Your task to perform on an android device: open app "HBO Max: Stream TV & Movies" (install if not already installed) and enter user name: "faring@outlook.com" and password: "appropriately" Image 0: 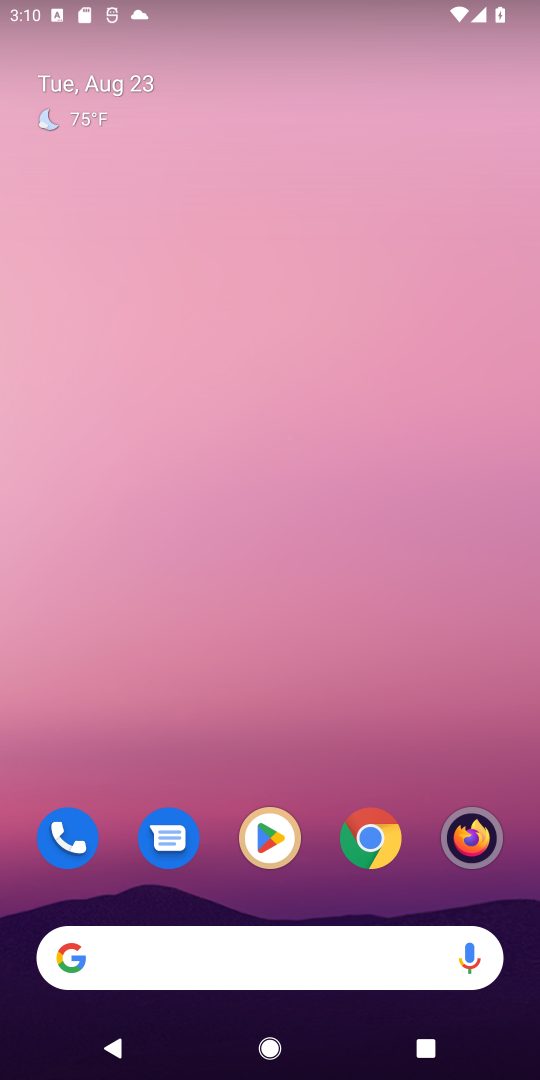
Step 0: click (265, 840)
Your task to perform on an android device: open app "HBO Max: Stream TV & Movies" (install if not already installed) and enter user name: "faring@outlook.com" and password: "appropriately" Image 1: 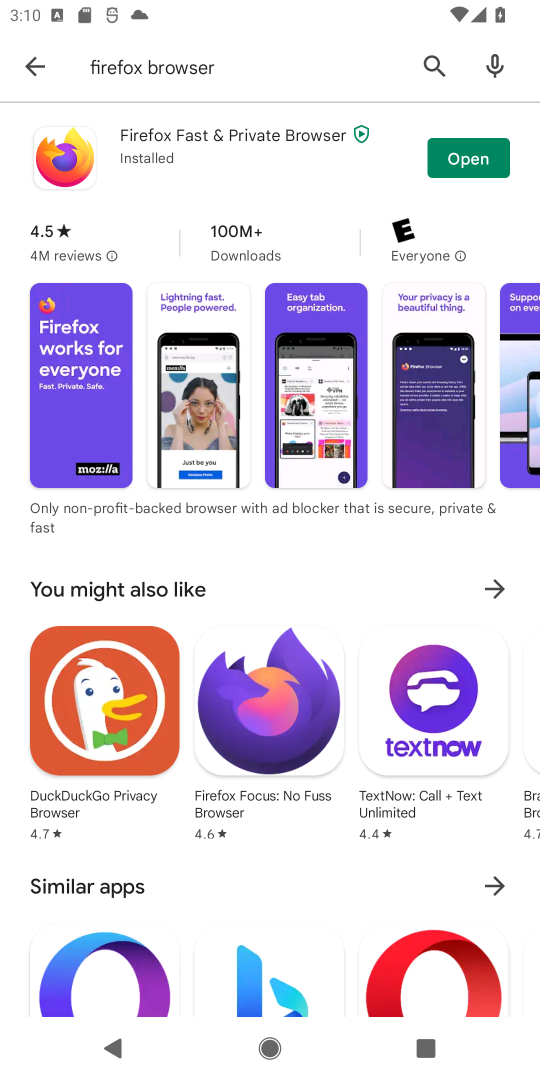
Step 1: click (20, 81)
Your task to perform on an android device: open app "HBO Max: Stream TV & Movies" (install if not already installed) and enter user name: "faring@outlook.com" and password: "appropriately" Image 2: 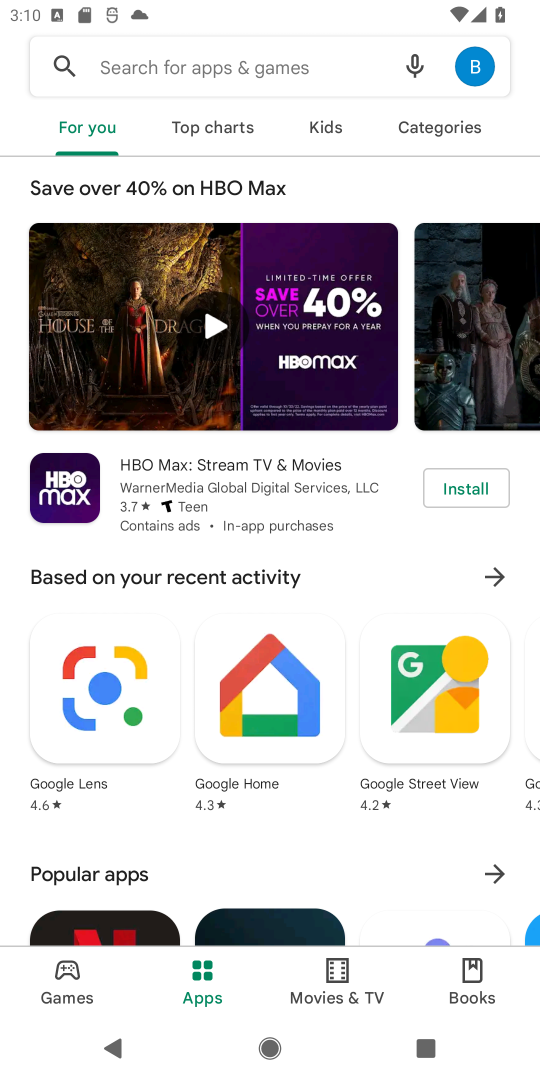
Step 2: click (172, 57)
Your task to perform on an android device: open app "HBO Max: Stream TV & Movies" (install if not already installed) and enter user name: "faring@outlook.com" and password: "appropriately" Image 3: 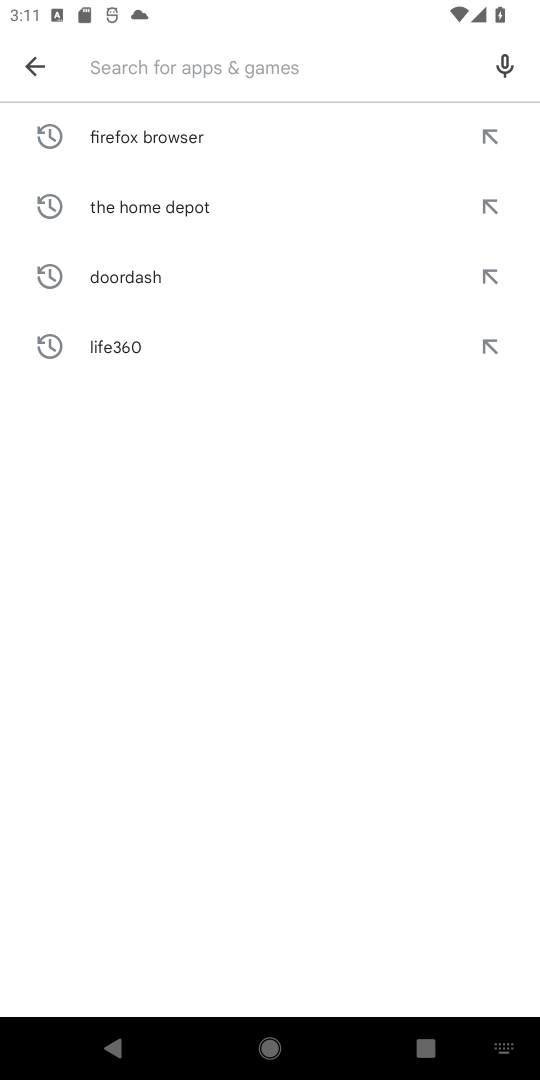
Step 3: type "HBO Max: Stream TV & Movies"
Your task to perform on an android device: open app "HBO Max: Stream TV & Movies" (install if not already installed) and enter user name: "faring@outlook.com" and password: "appropriately" Image 4: 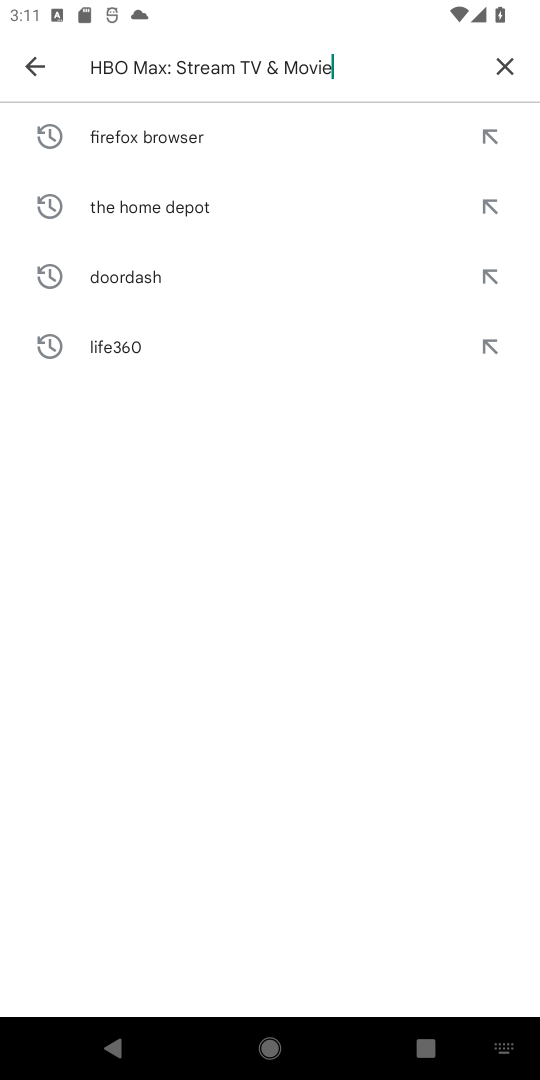
Step 4: type ""
Your task to perform on an android device: open app "HBO Max: Stream TV & Movies" (install if not already installed) and enter user name: "faring@outlook.com" and password: "appropriately" Image 5: 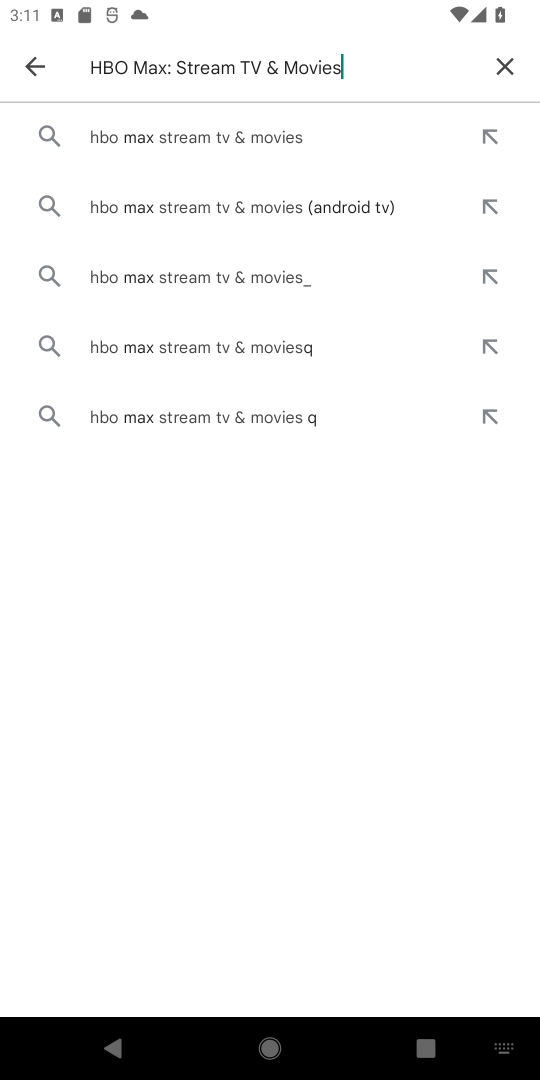
Step 5: click (195, 131)
Your task to perform on an android device: open app "HBO Max: Stream TV & Movies" (install if not already installed) and enter user name: "faring@outlook.com" and password: "appropriately" Image 6: 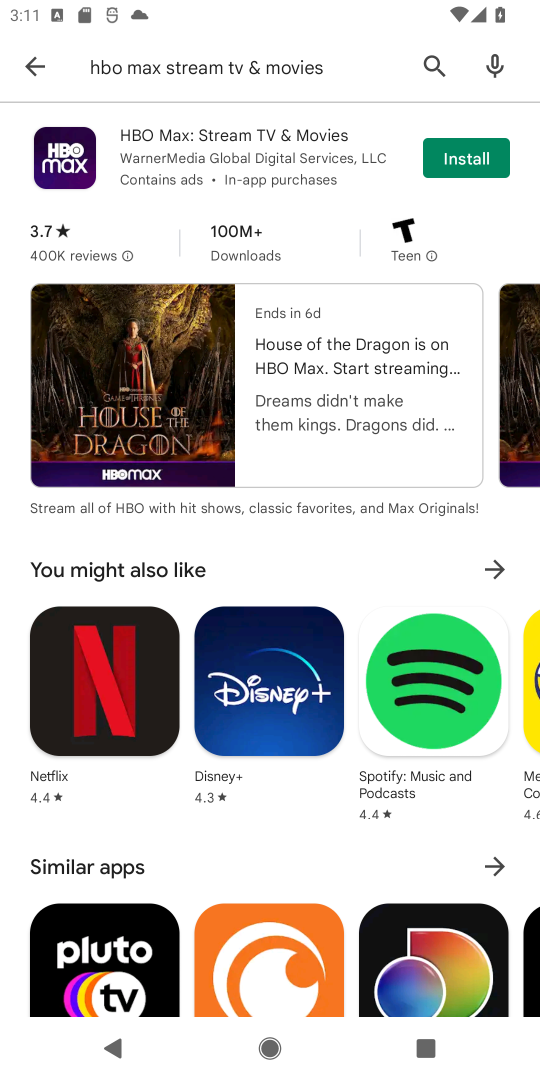
Step 6: click (461, 137)
Your task to perform on an android device: open app "HBO Max: Stream TV & Movies" (install if not already installed) and enter user name: "faring@outlook.com" and password: "appropriately" Image 7: 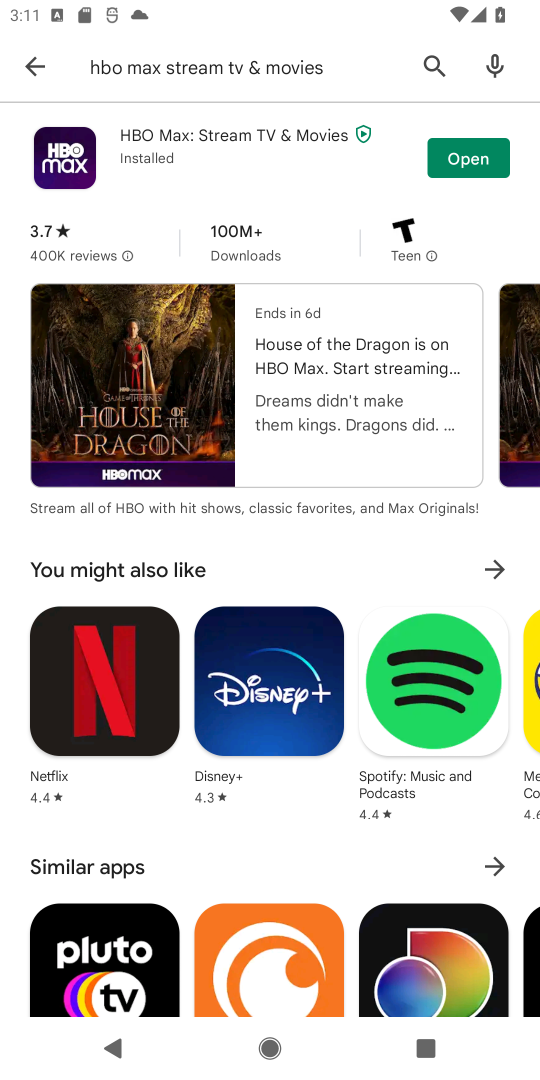
Step 7: click (440, 171)
Your task to perform on an android device: open app "HBO Max: Stream TV & Movies" (install if not already installed) and enter user name: "faring@outlook.com" and password: "appropriately" Image 8: 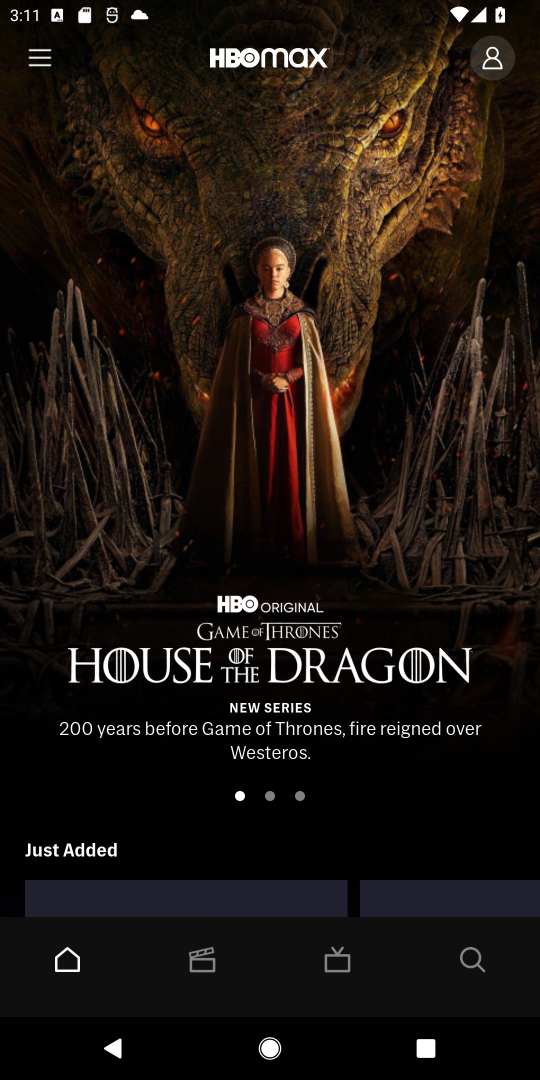
Step 8: click (494, 64)
Your task to perform on an android device: open app "HBO Max: Stream TV & Movies" (install if not already installed) and enter user name: "faring@outlook.com" and password: "appropriately" Image 9: 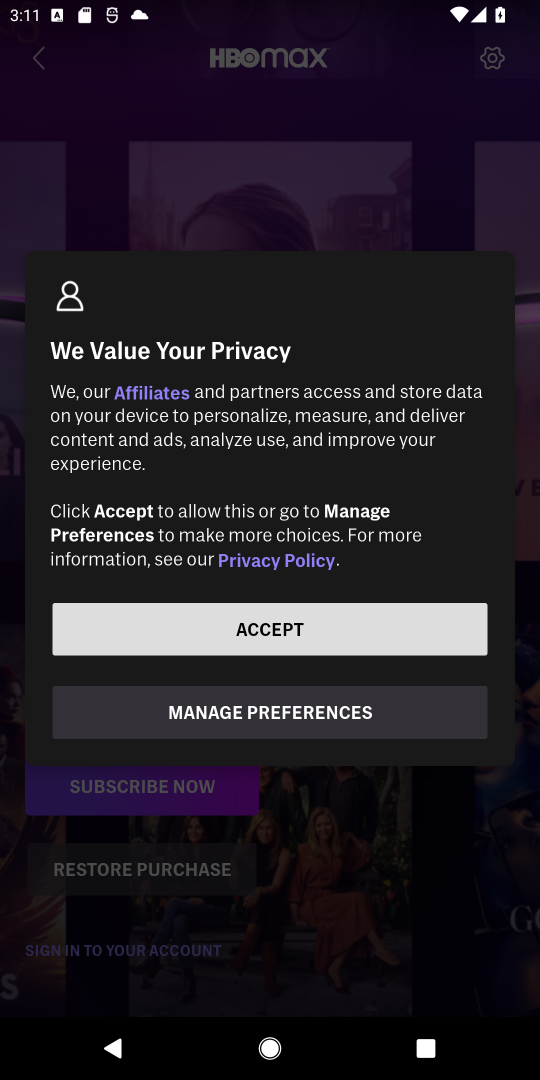
Step 9: click (203, 648)
Your task to perform on an android device: open app "HBO Max: Stream TV & Movies" (install if not already installed) and enter user name: "faring@outlook.com" and password: "appropriately" Image 10: 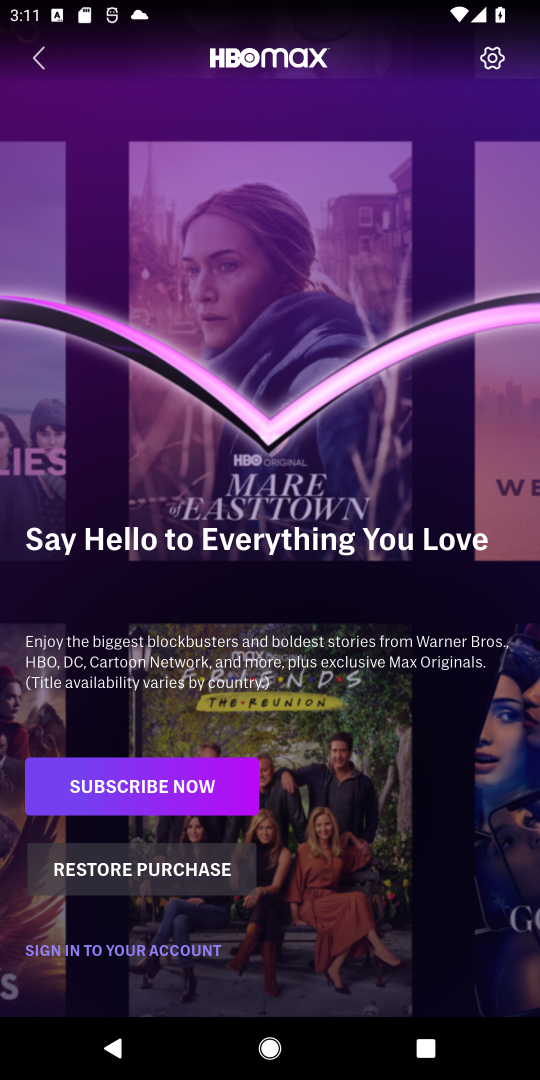
Step 10: click (172, 951)
Your task to perform on an android device: open app "HBO Max: Stream TV & Movies" (install if not already installed) and enter user name: "faring@outlook.com" and password: "appropriately" Image 11: 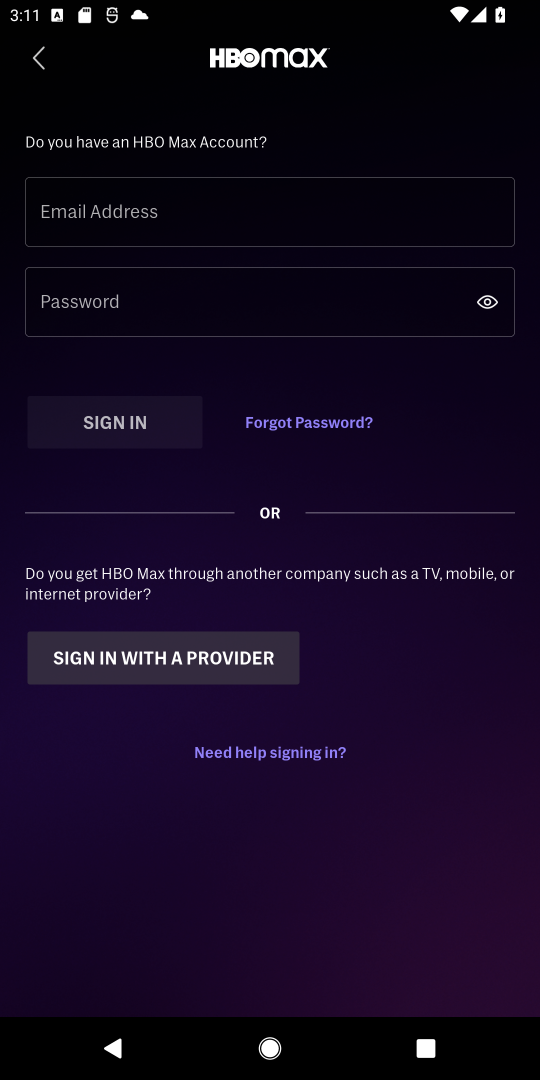
Step 11: click (58, 221)
Your task to perform on an android device: open app "HBO Max: Stream TV & Movies" (install if not already installed) and enter user name: "faring@outlook.com" and password: "appropriately" Image 12: 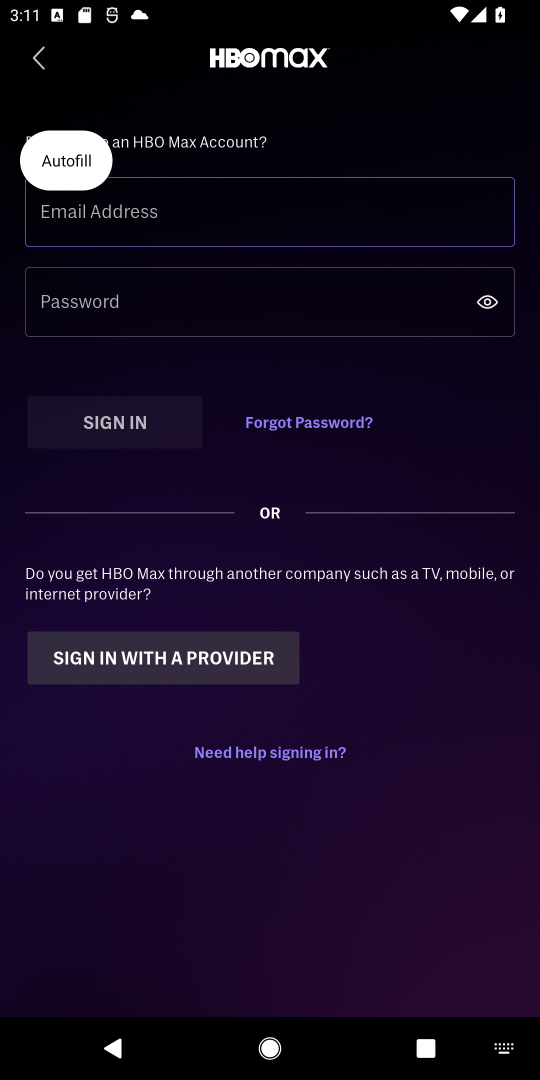
Step 12: type "faring@outlook.com"
Your task to perform on an android device: open app "HBO Max: Stream TV & Movies" (install if not already installed) and enter user name: "faring@outlook.com" and password: "appropriately" Image 13: 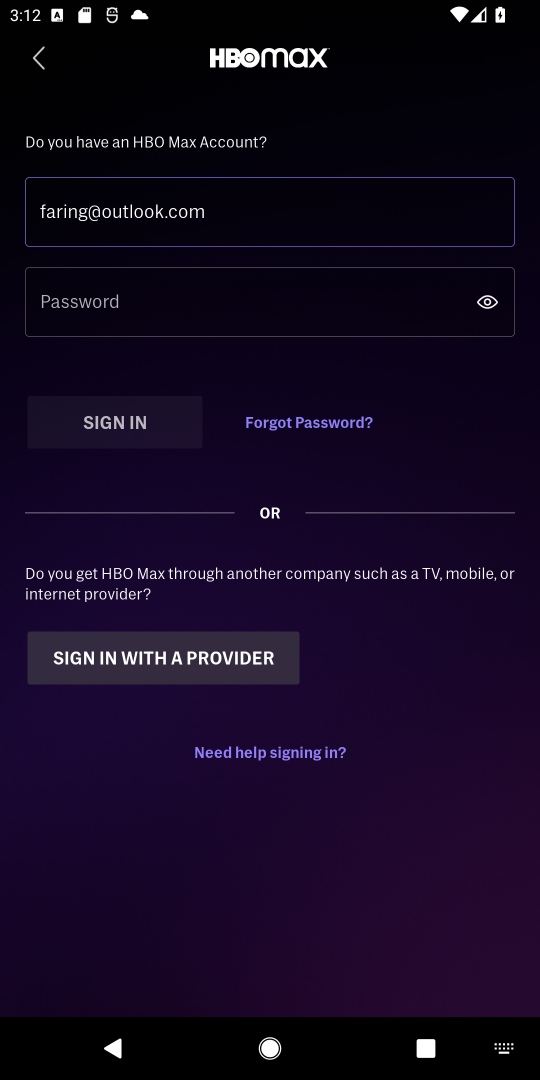
Step 13: click (103, 298)
Your task to perform on an android device: open app "HBO Max: Stream TV & Movies" (install if not already installed) and enter user name: "faring@outlook.com" and password: "appropriately" Image 14: 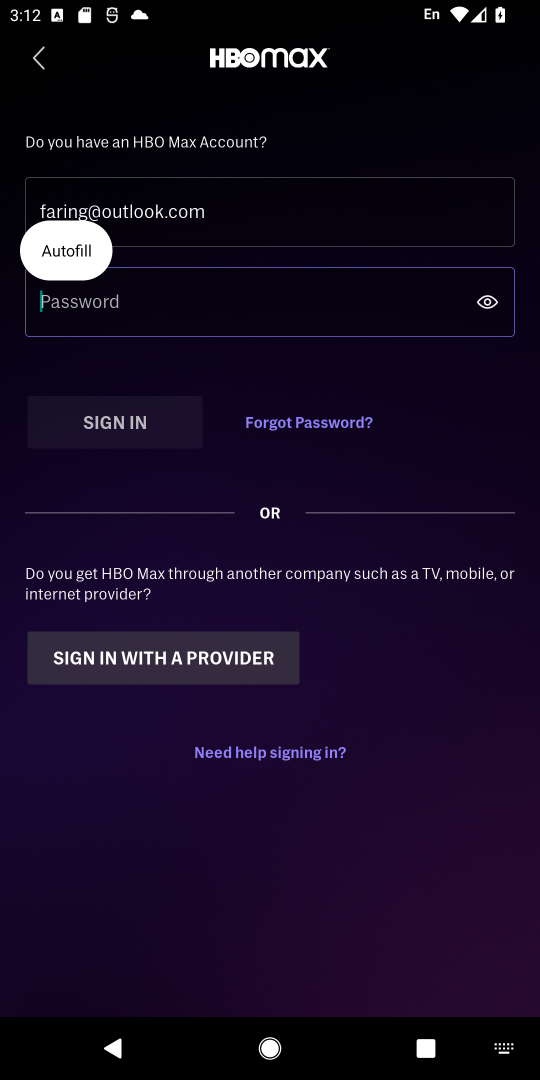
Step 14: type "appropriately"
Your task to perform on an android device: open app "HBO Max: Stream TV & Movies" (install if not already installed) and enter user name: "faring@outlook.com" and password: "appropriately" Image 15: 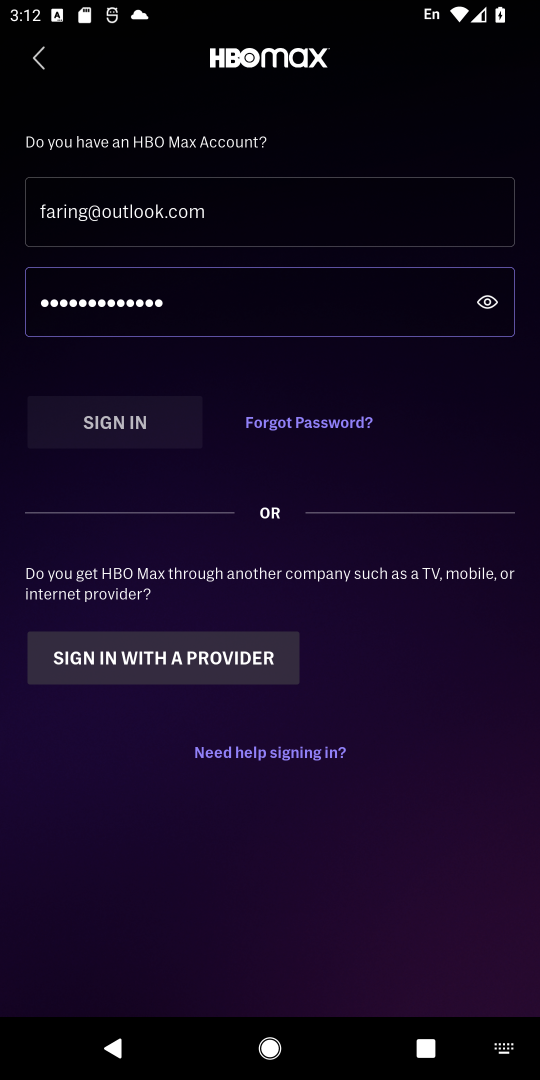
Step 15: task complete